Your task to perform on an android device: open a bookmark in the chrome app Image 0: 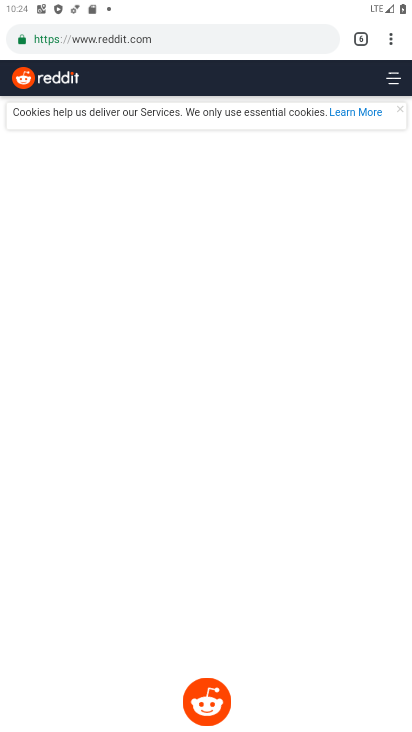
Step 0: press home button
Your task to perform on an android device: open a bookmark in the chrome app Image 1: 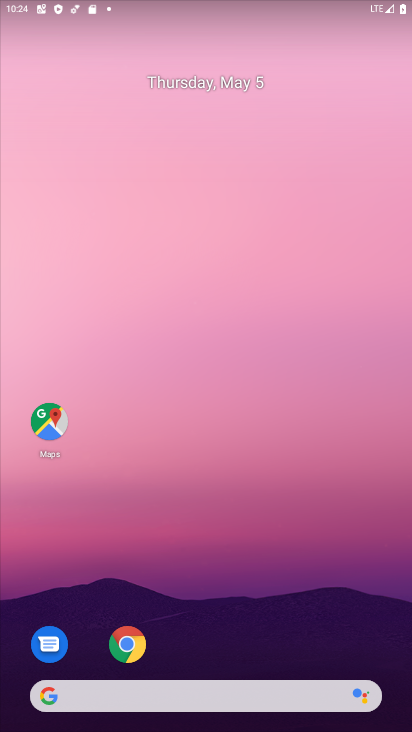
Step 1: click (118, 660)
Your task to perform on an android device: open a bookmark in the chrome app Image 2: 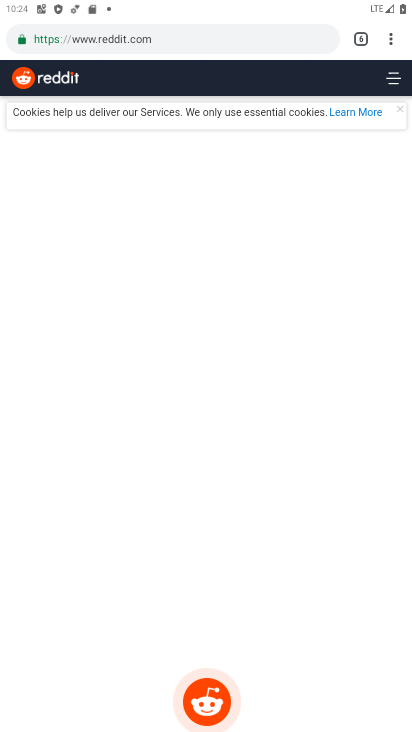
Step 2: click (384, 38)
Your task to perform on an android device: open a bookmark in the chrome app Image 3: 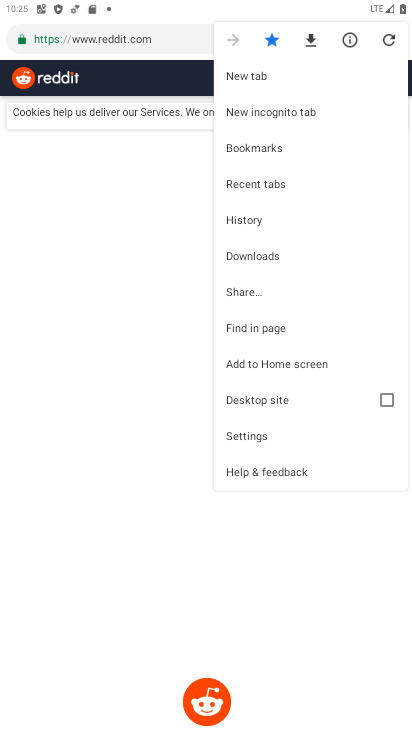
Step 3: click (259, 152)
Your task to perform on an android device: open a bookmark in the chrome app Image 4: 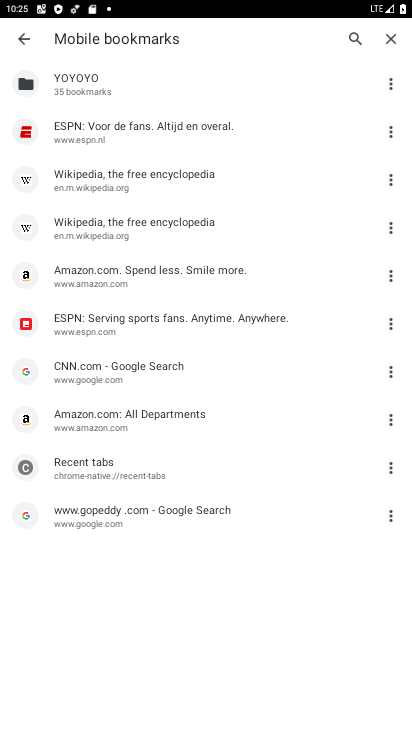
Step 4: task complete